Your task to perform on an android device: check out phone information Image 0: 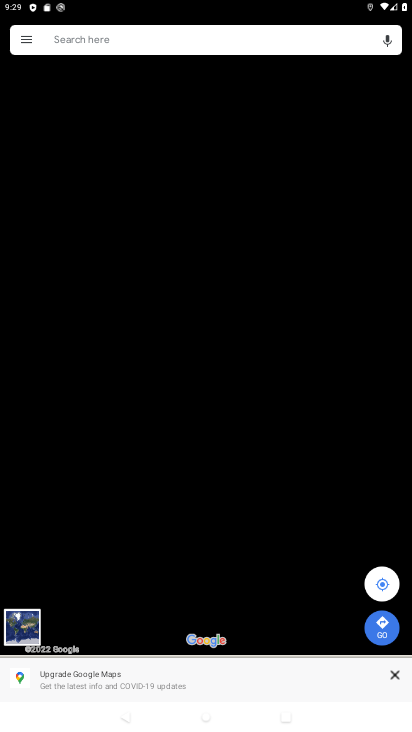
Step 0: press home button
Your task to perform on an android device: check out phone information Image 1: 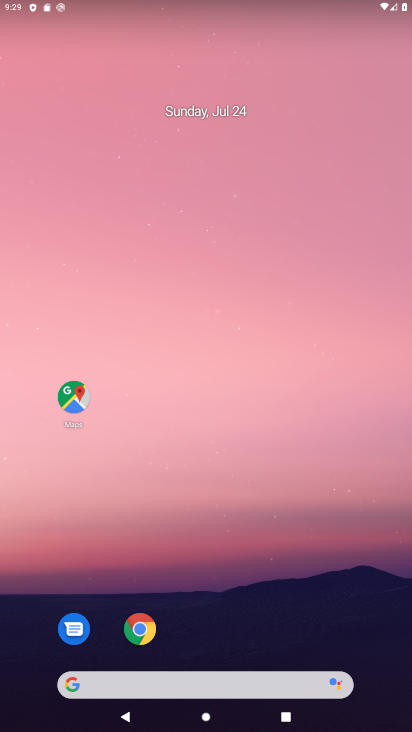
Step 1: drag from (196, 676) to (217, 163)
Your task to perform on an android device: check out phone information Image 2: 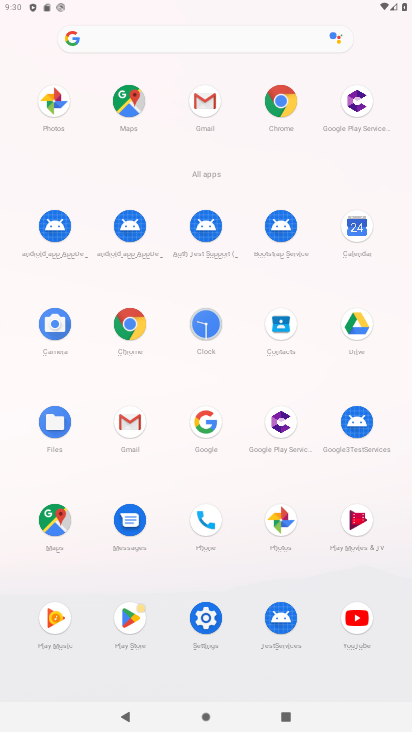
Step 2: click (206, 619)
Your task to perform on an android device: check out phone information Image 3: 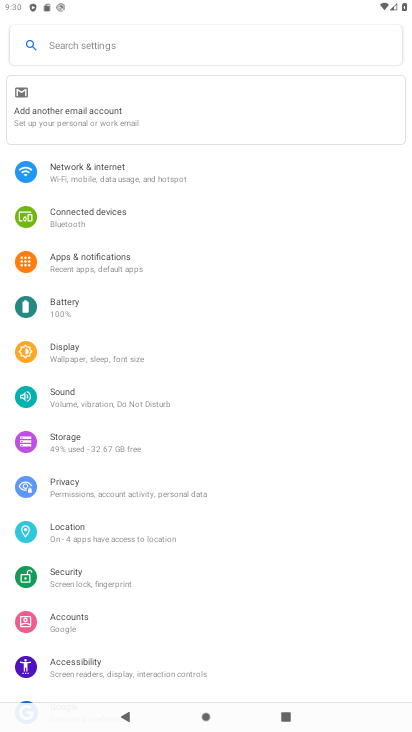
Step 3: drag from (143, 612) to (190, 514)
Your task to perform on an android device: check out phone information Image 4: 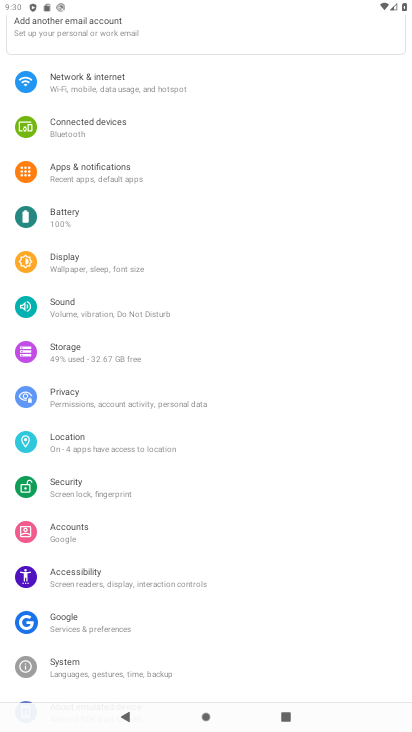
Step 4: drag from (122, 648) to (168, 549)
Your task to perform on an android device: check out phone information Image 5: 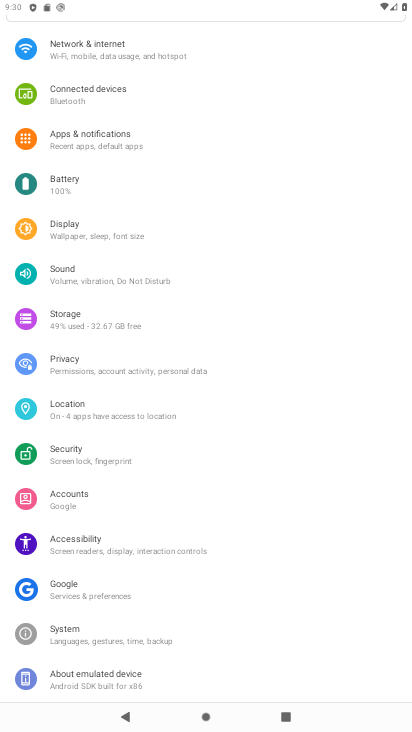
Step 5: click (123, 670)
Your task to perform on an android device: check out phone information Image 6: 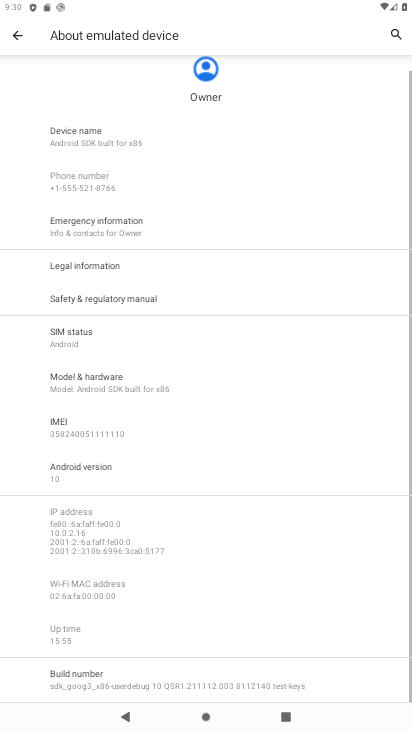
Step 6: task complete